Your task to perform on an android device: toggle data saver in the chrome app Image 0: 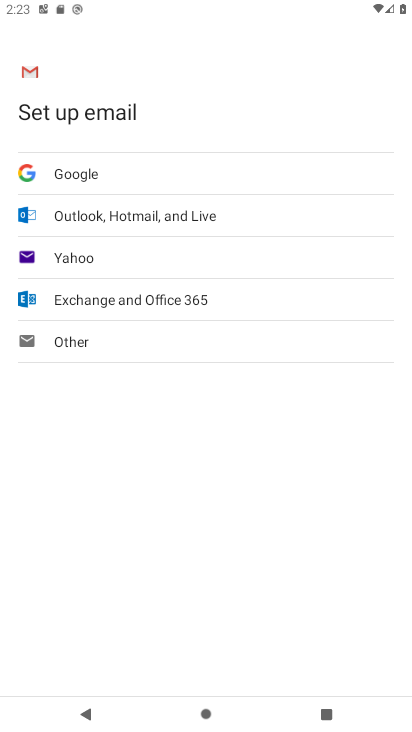
Step 0: press home button
Your task to perform on an android device: toggle data saver in the chrome app Image 1: 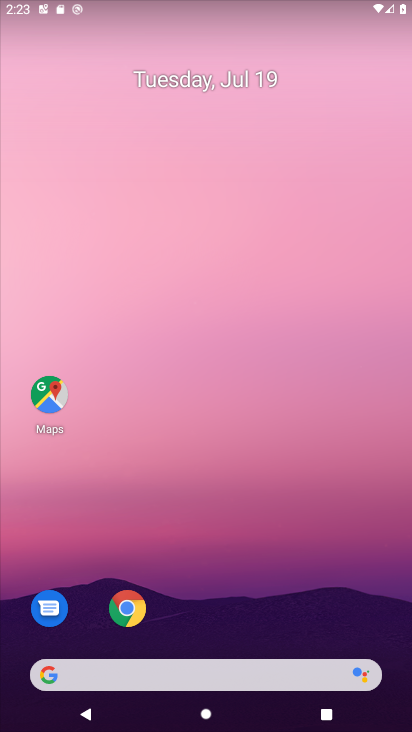
Step 1: click (128, 617)
Your task to perform on an android device: toggle data saver in the chrome app Image 2: 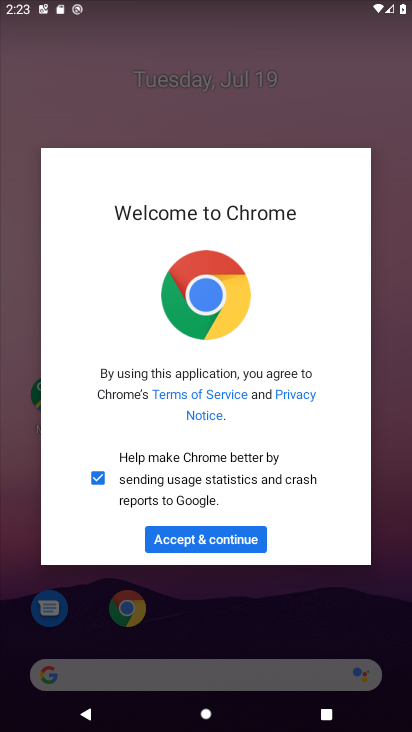
Step 2: click (210, 540)
Your task to perform on an android device: toggle data saver in the chrome app Image 3: 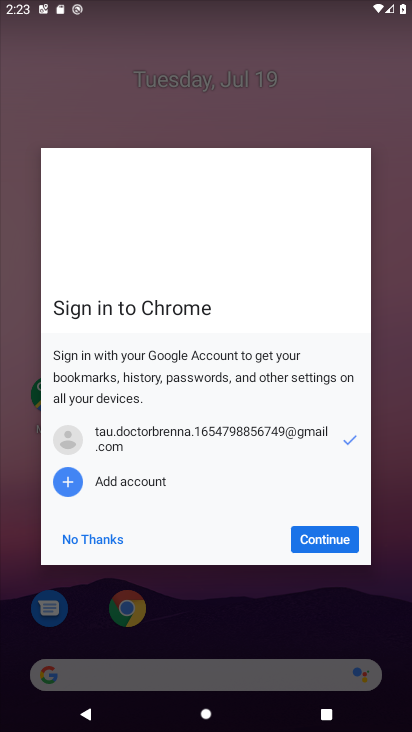
Step 3: click (325, 539)
Your task to perform on an android device: toggle data saver in the chrome app Image 4: 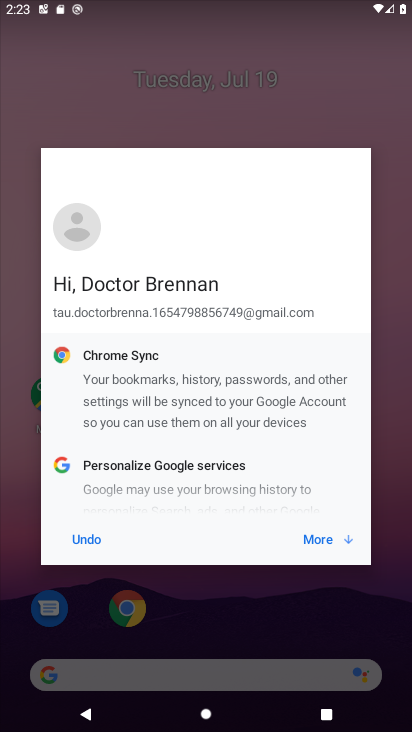
Step 4: click (325, 539)
Your task to perform on an android device: toggle data saver in the chrome app Image 5: 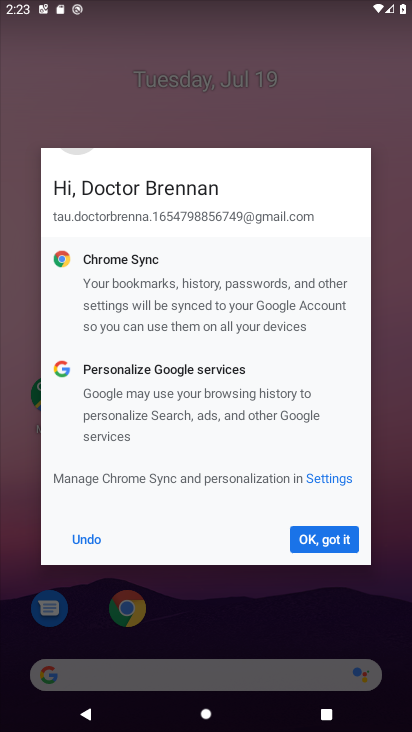
Step 5: click (325, 539)
Your task to perform on an android device: toggle data saver in the chrome app Image 6: 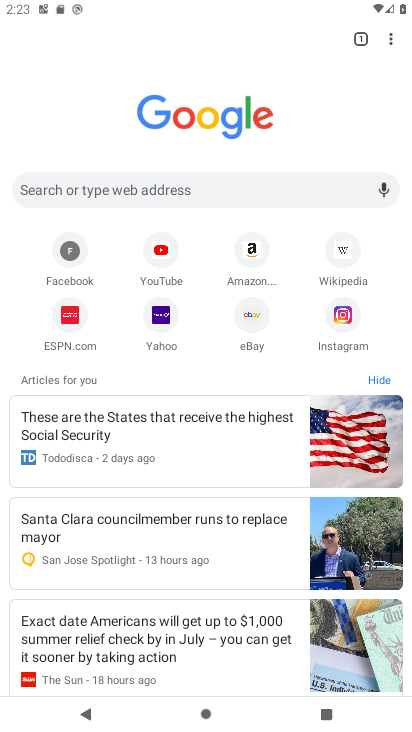
Step 6: click (391, 37)
Your task to perform on an android device: toggle data saver in the chrome app Image 7: 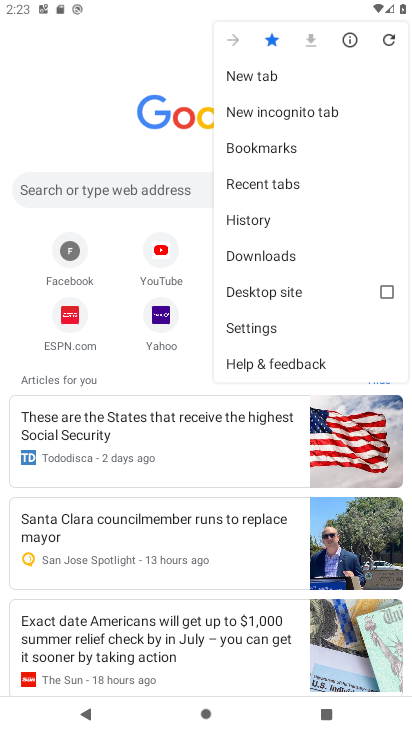
Step 7: click (264, 325)
Your task to perform on an android device: toggle data saver in the chrome app Image 8: 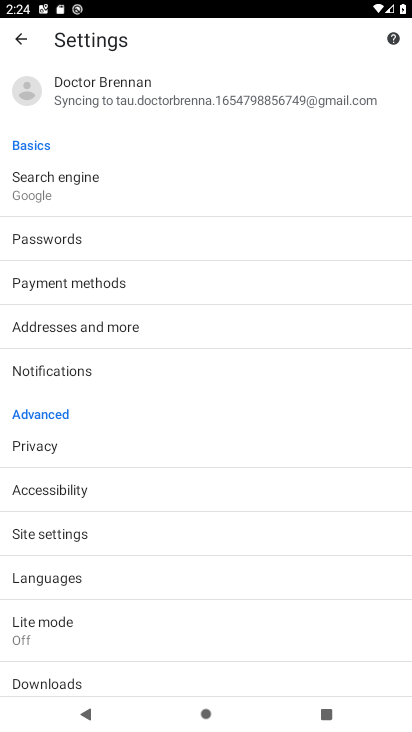
Step 8: click (107, 628)
Your task to perform on an android device: toggle data saver in the chrome app Image 9: 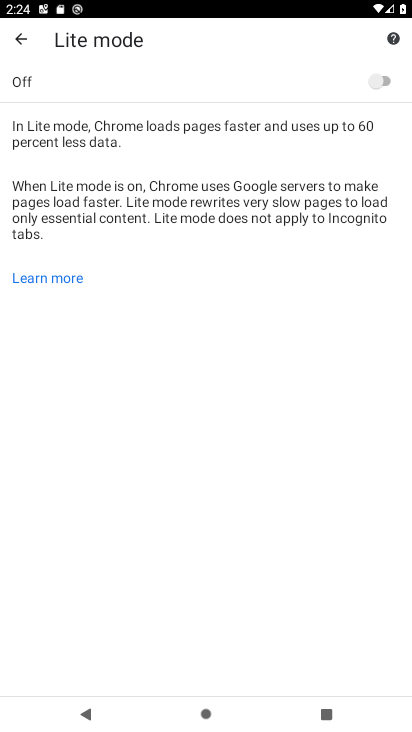
Step 9: click (373, 89)
Your task to perform on an android device: toggle data saver in the chrome app Image 10: 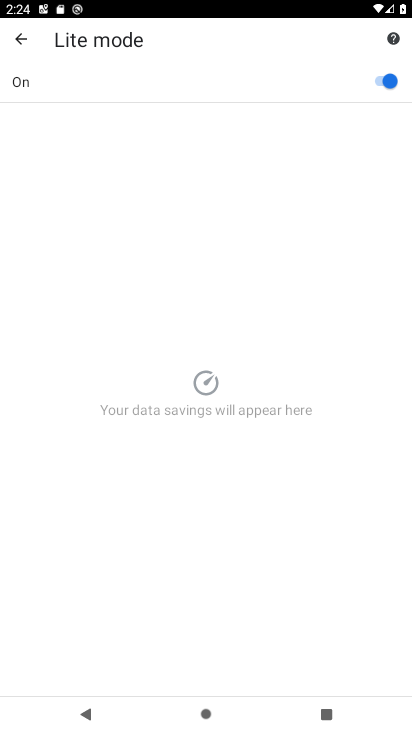
Step 10: task complete